Your task to perform on an android device: toggle translation in the chrome app Image 0: 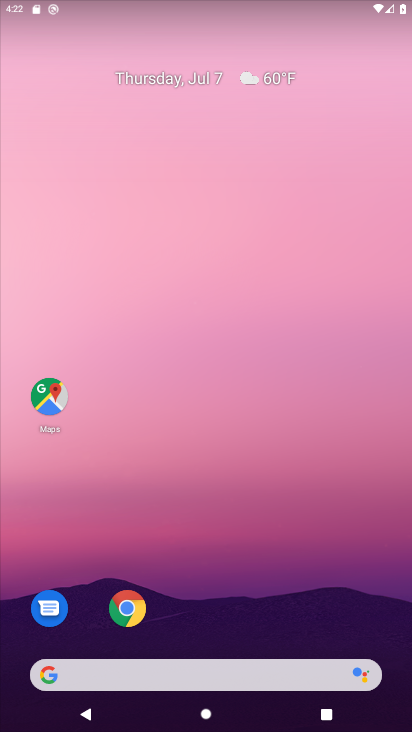
Step 0: click (143, 616)
Your task to perform on an android device: toggle translation in the chrome app Image 1: 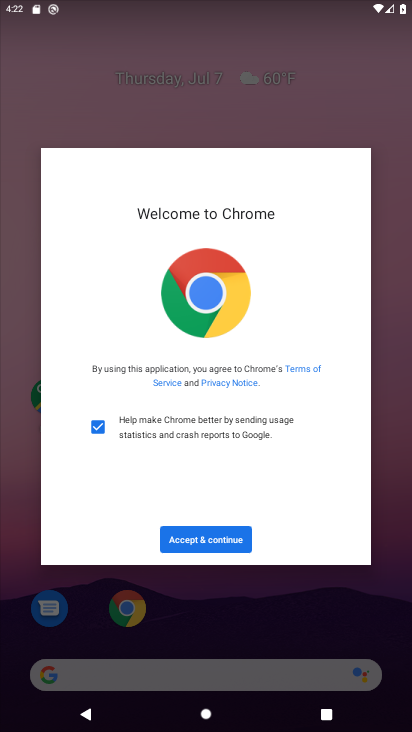
Step 1: click (235, 540)
Your task to perform on an android device: toggle translation in the chrome app Image 2: 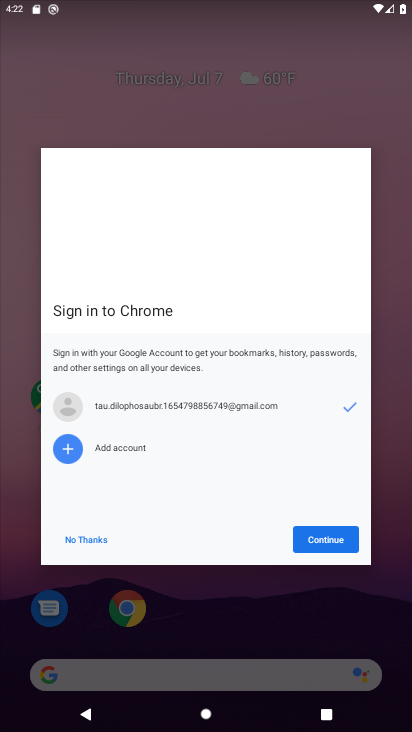
Step 2: click (315, 540)
Your task to perform on an android device: toggle translation in the chrome app Image 3: 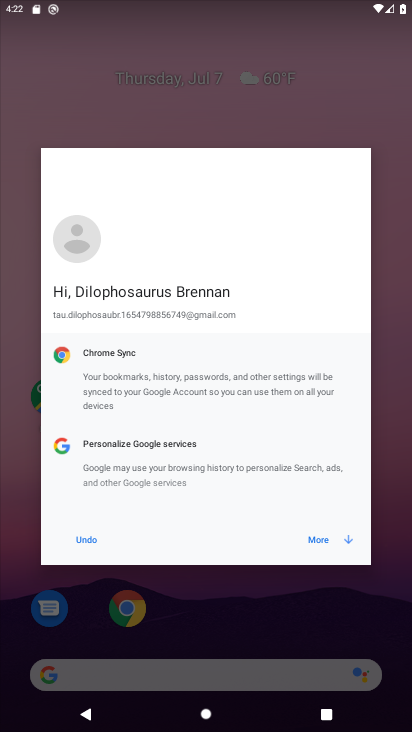
Step 3: click (332, 544)
Your task to perform on an android device: toggle translation in the chrome app Image 4: 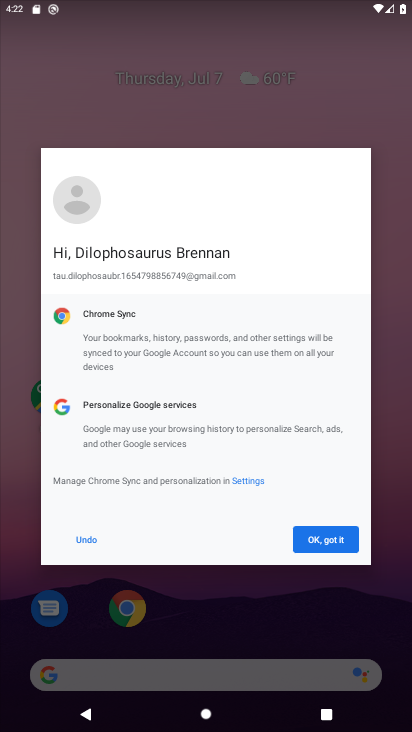
Step 4: click (332, 544)
Your task to perform on an android device: toggle translation in the chrome app Image 5: 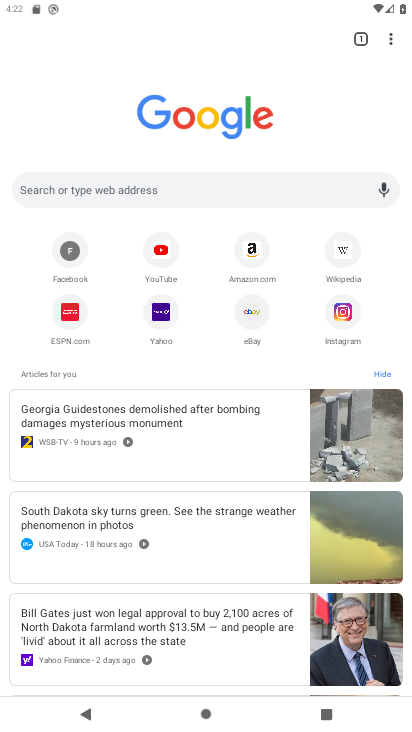
Step 5: drag from (395, 41) to (300, 317)
Your task to perform on an android device: toggle translation in the chrome app Image 6: 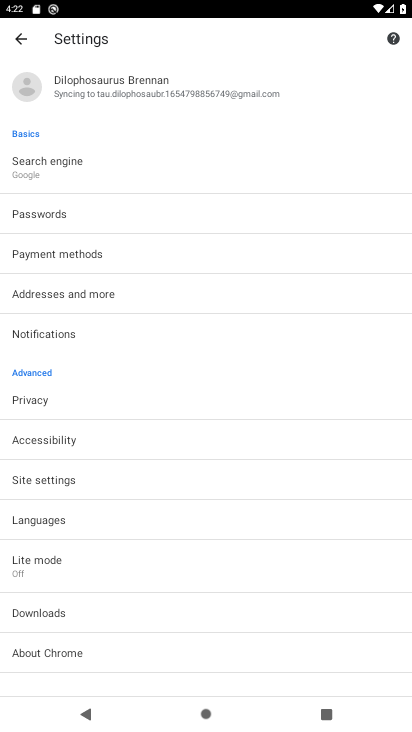
Step 6: click (76, 525)
Your task to perform on an android device: toggle translation in the chrome app Image 7: 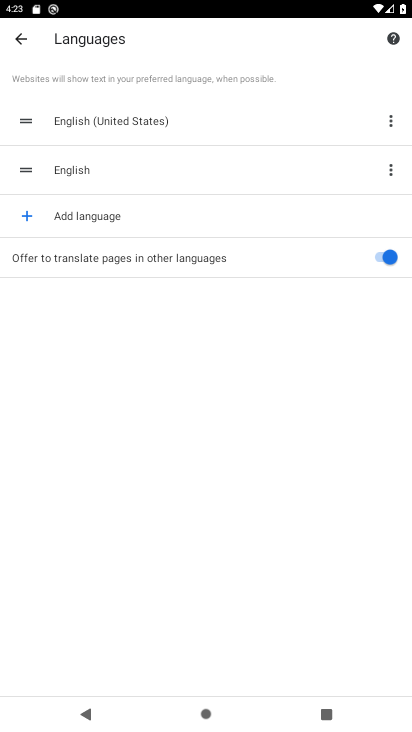
Step 7: click (374, 250)
Your task to perform on an android device: toggle translation in the chrome app Image 8: 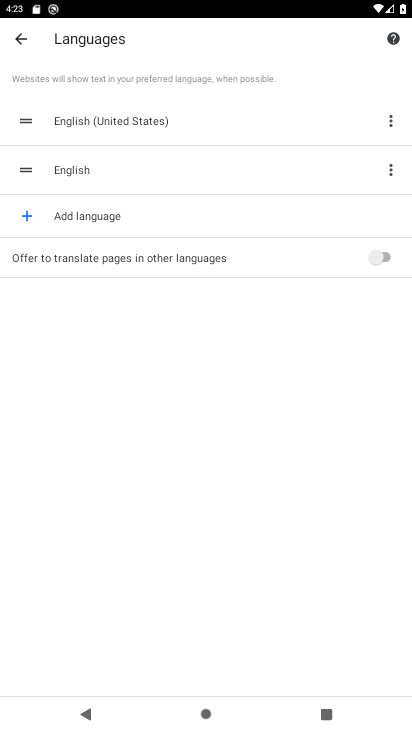
Step 8: task complete